Your task to perform on an android device: Do I have any events today? Image 0: 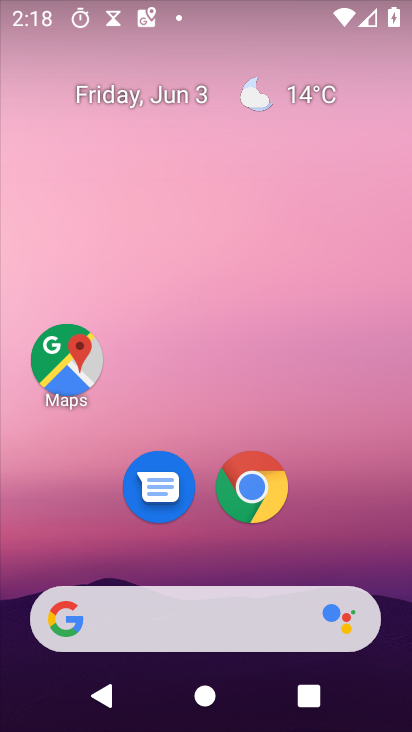
Step 0: click (142, 99)
Your task to perform on an android device: Do I have any events today? Image 1: 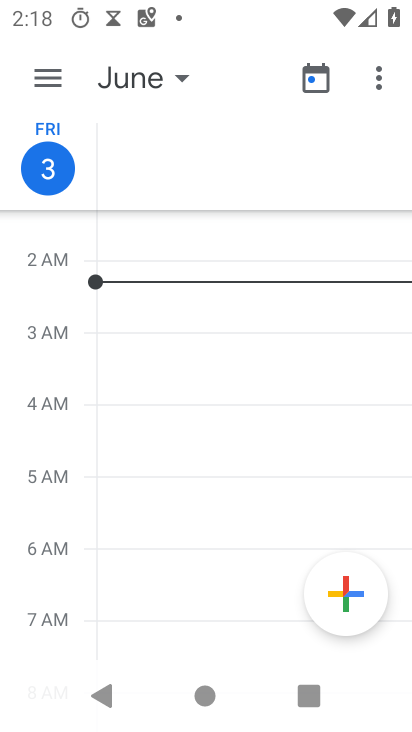
Step 1: task complete